Your task to perform on an android device: delete browsing data in the chrome app Image 0: 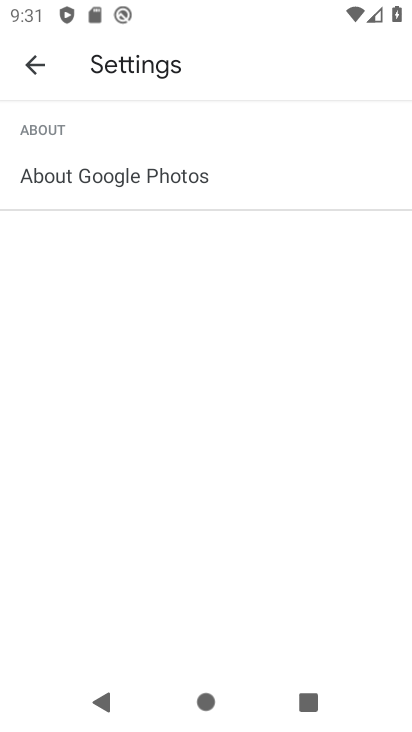
Step 0: press home button
Your task to perform on an android device: delete browsing data in the chrome app Image 1: 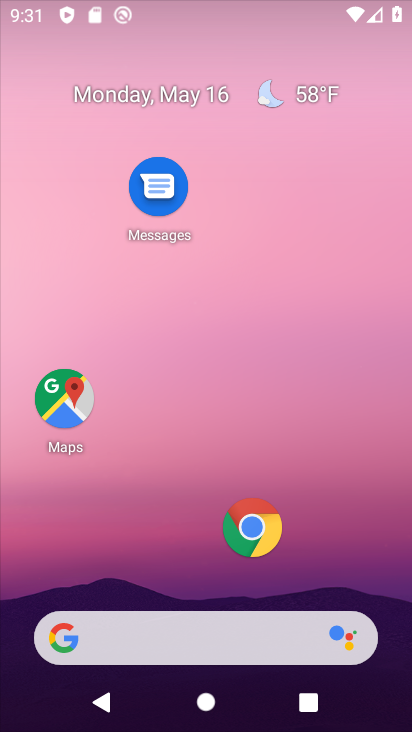
Step 1: drag from (181, 550) to (194, 433)
Your task to perform on an android device: delete browsing data in the chrome app Image 2: 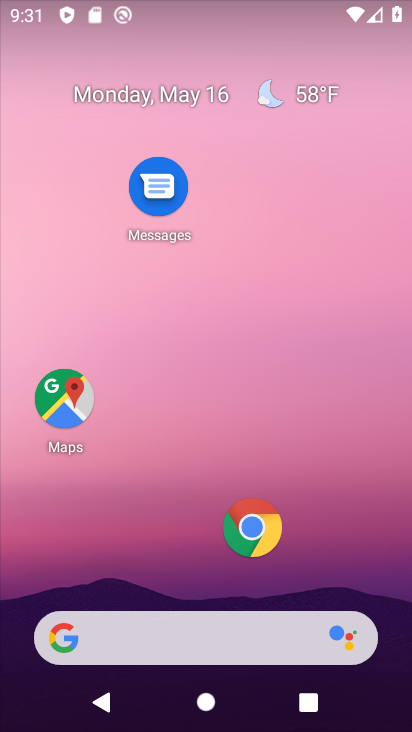
Step 2: click (250, 527)
Your task to perform on an android device: delete browsing data in the chrome app Image 3: 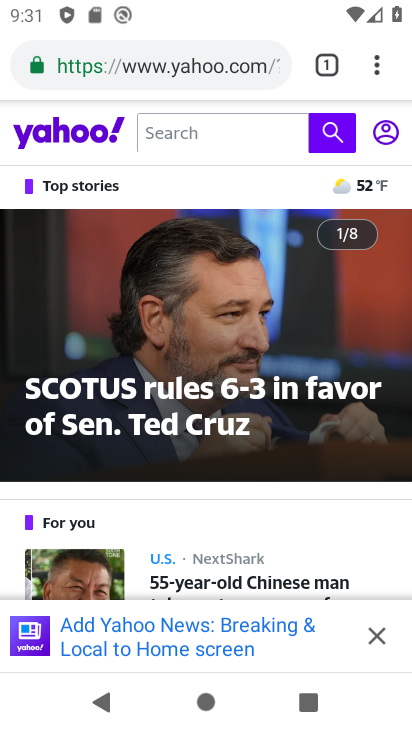
Step 3: click (373, 68)
Your task to perform on an android device: delete browsing data in the chrome app Image 4: 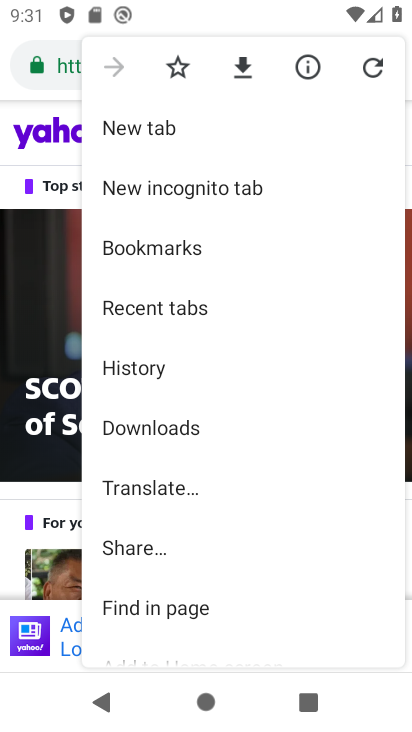
Step 4: drag from (216, 607) to (211, 572)
Your task to perform on an android device: delete browsing data in the chrome app Image 5: 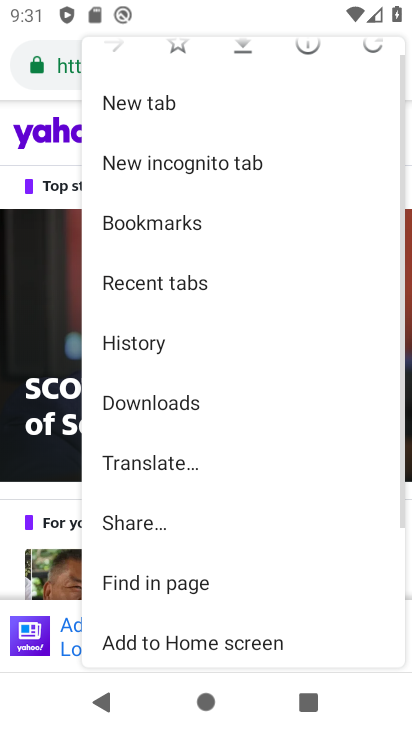
Step 5: click (154, 359)
Your task to perform on an android device: delete browsing data in the chrome app Image 6: 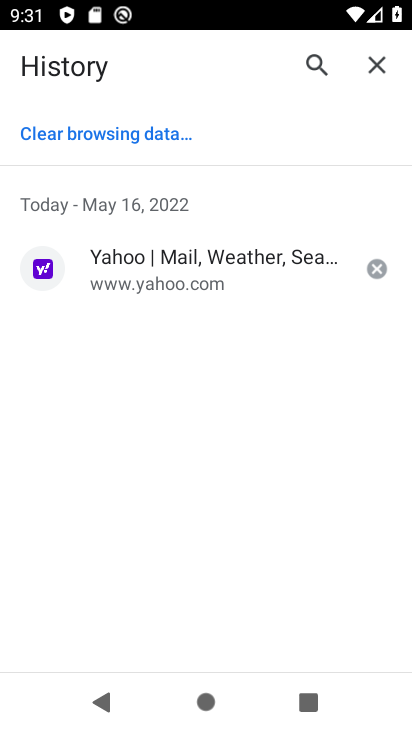
Step 6: click (148, 130)
Your task to perform on an android device: delete browsing data in the chrome app Image 7: 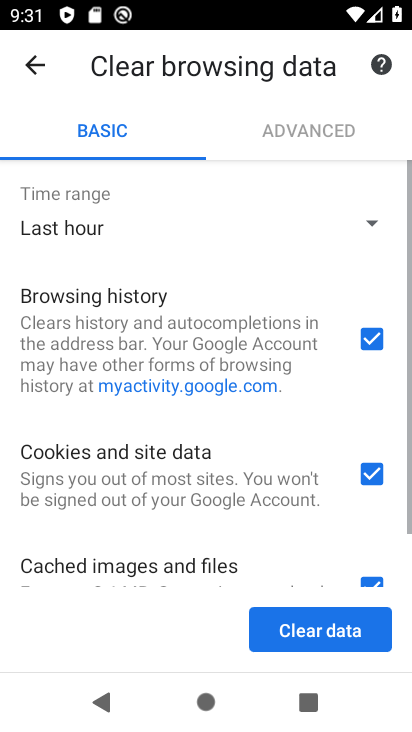
Step 7: click (378, 471)
Your task to perform on an android device: delete browsing data in the chrome app Image 8: 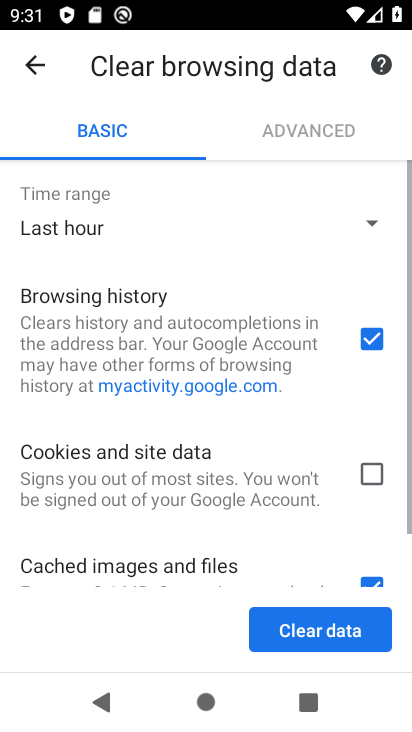
Step 8: click (374, 577)
Your task to perform on an android device: delete browsing data in the chrome app Image 9: 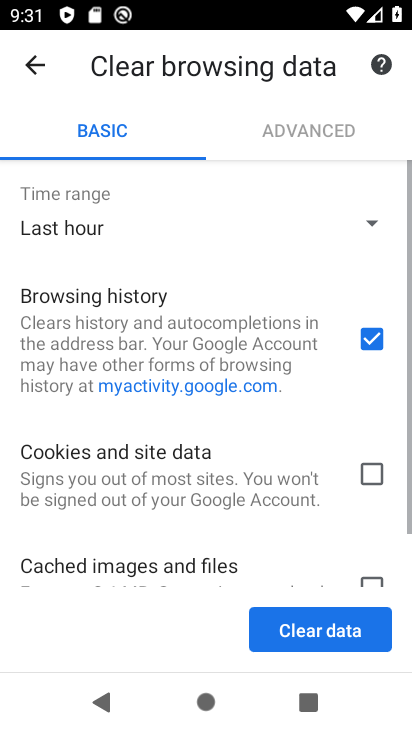
Step 9: click (306, 625)
Your task to perform on an android device: delete browsing data in the chrome app Image 10: 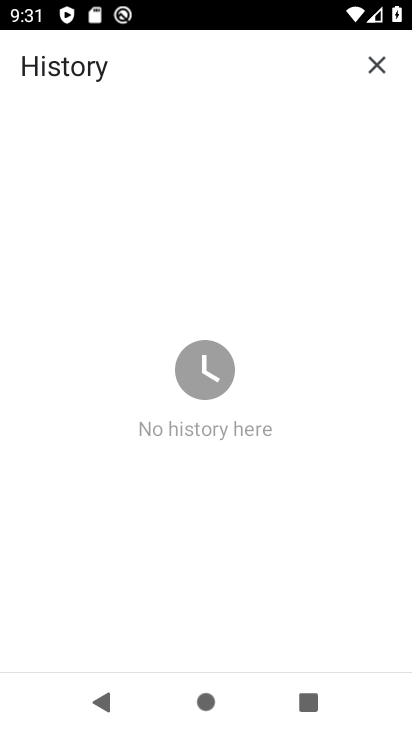
Step 10: task complete